Your task to perform on an android device: check storage Image 0: 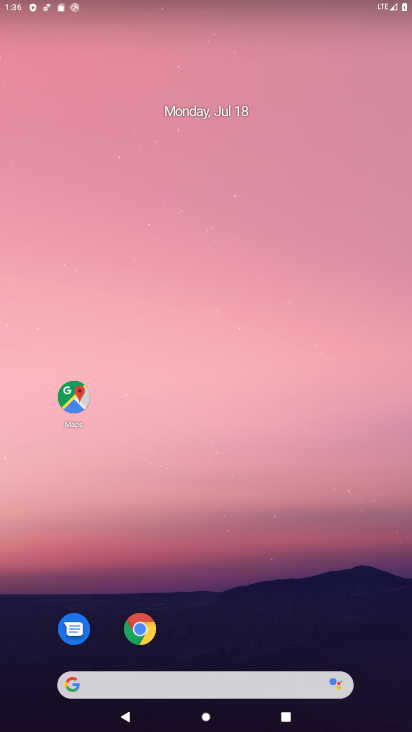
Step 0: press home button
Your task to perform on an android device: check storage Image 1: 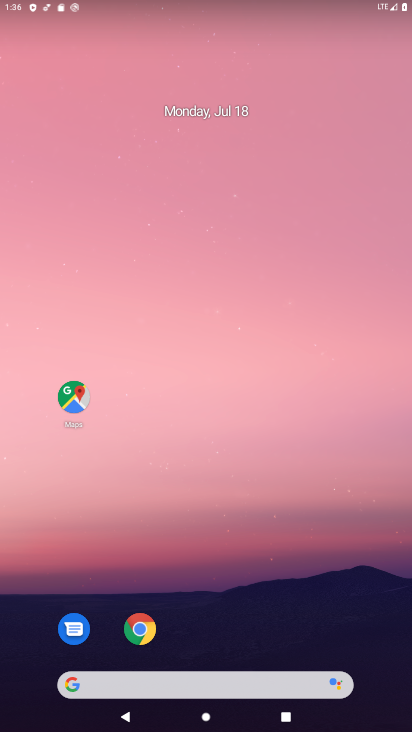
Step 1: drag from (221, 643) to (210, 61)
Your task to perform on an android device: check storage Image 2: 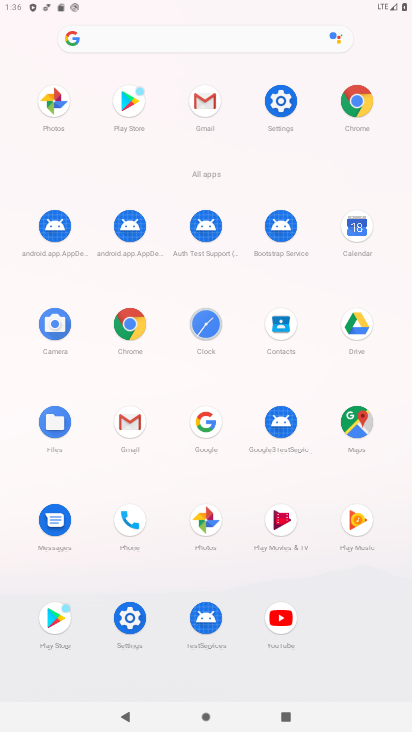
Step 2: click (276, 99)
Your task to perform on an android device: check storage Image 3: 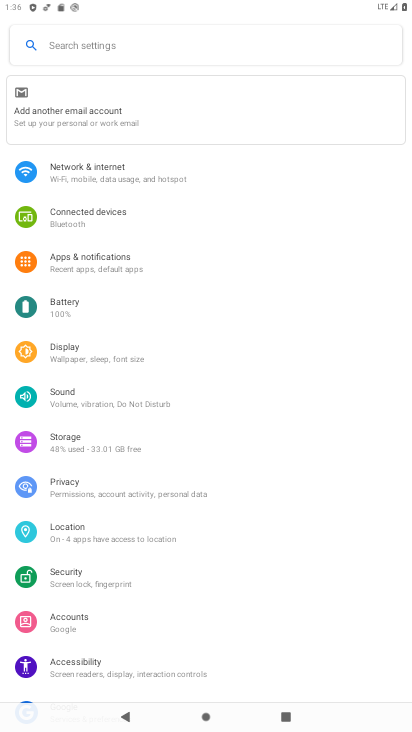
Step 3: click (91, 438)
Your task to perform on an android device: check storage Image 4: 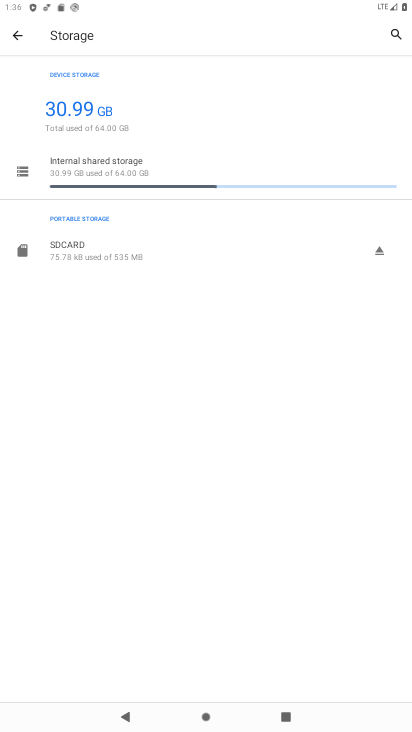
Step 4: task complete